Your task to perform on an android device: Open notification settings Image 0: 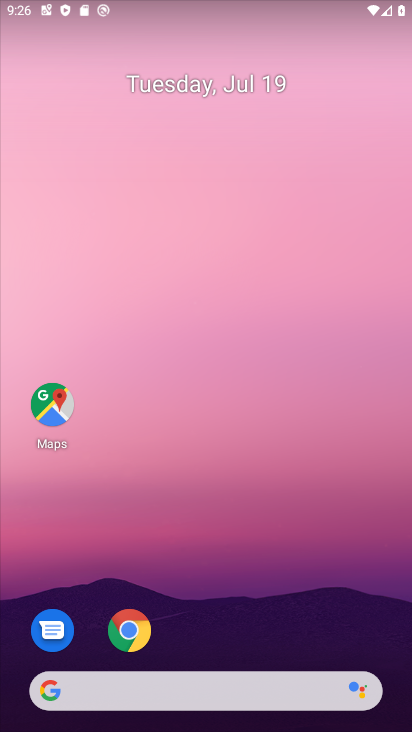
Step 0: drag from (183, 624) to (171, 112)
Your task to perform on an android device: Open notification settings Image 1: 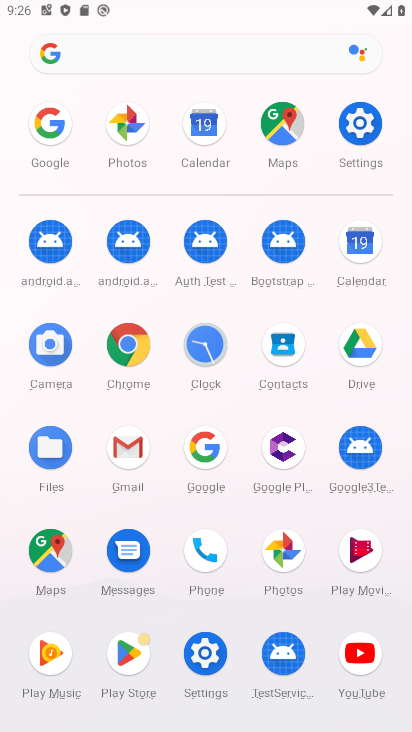
Step 1: click (351, 125)
Your task to perform on an android device: Open notification settings Image 2: 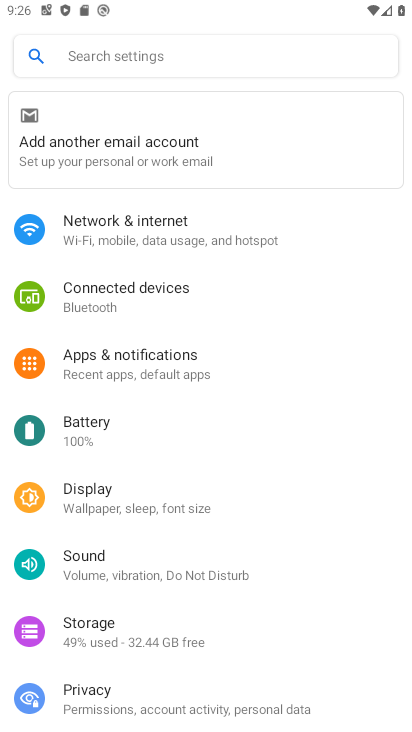
Step 2: click (159, 368)
Your task to perform on an android device: Open notification settings Image 3: 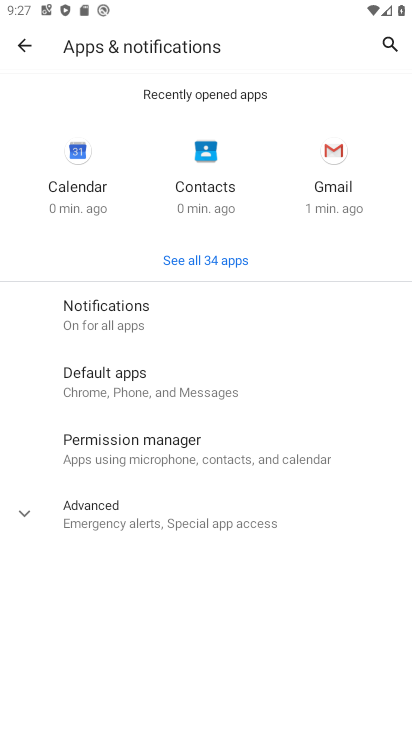
Step 3: click (138, 312)
Your task to perform on an android device: Open notification settings Image 4: 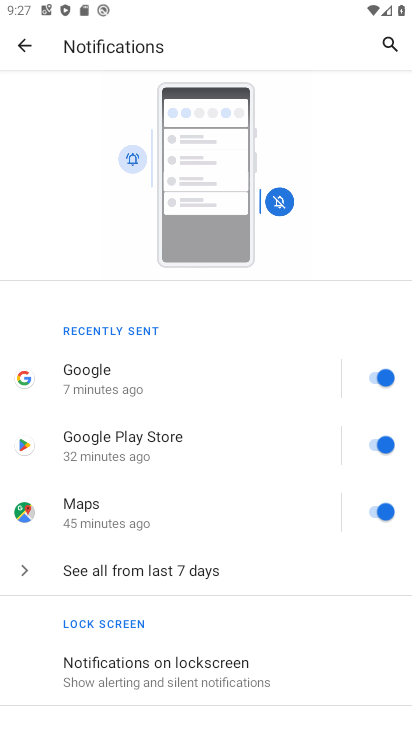
Step 4: task complete